Your task to perform on an android device: change notifications settings Image 0: 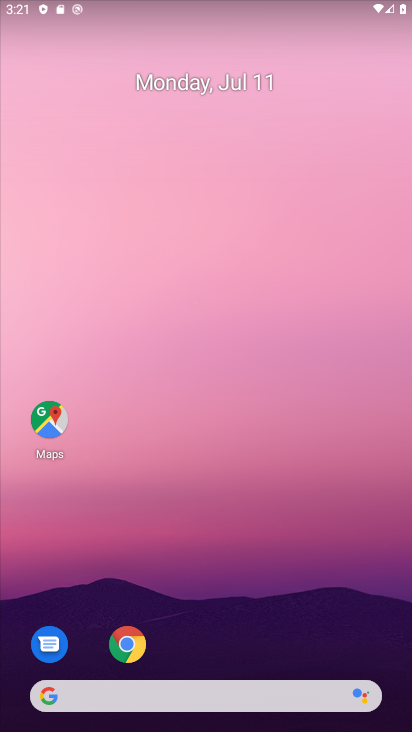
Step 0: drag from (215, 725) to (236, 57)
Your task to perform on an android device: change notifications settings Image 1: 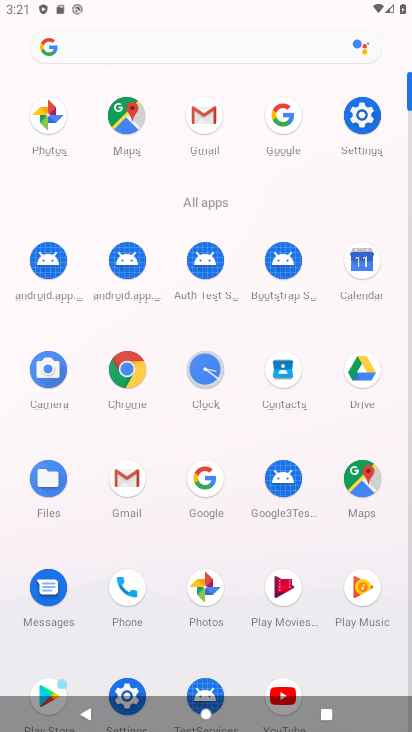
Step 1: click (363, 110)
Your task to perform on an android device: change notifications settings Image 2: 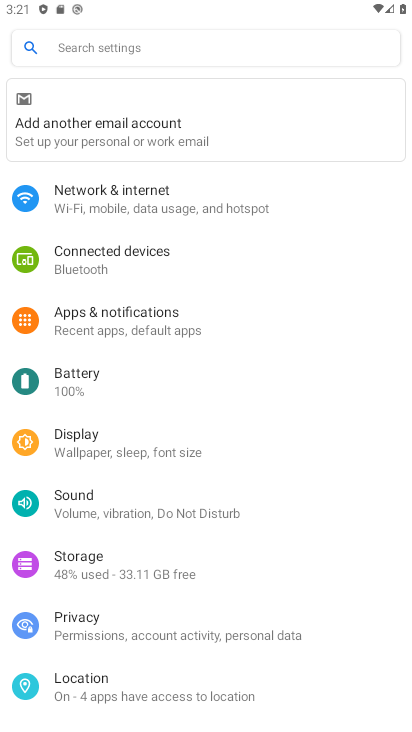
Step 2: click (101, 317)
Your task to perform on an android device: change notifications settings Image 3: 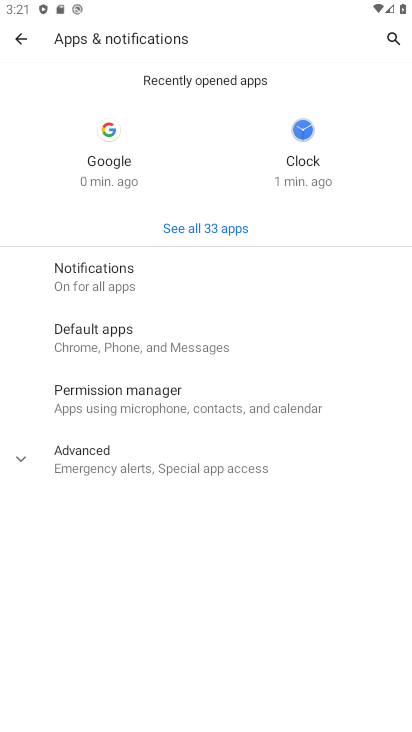
Step 3: click (95, 283)
Your task to perform on an android device: change notifications settings Image 4: 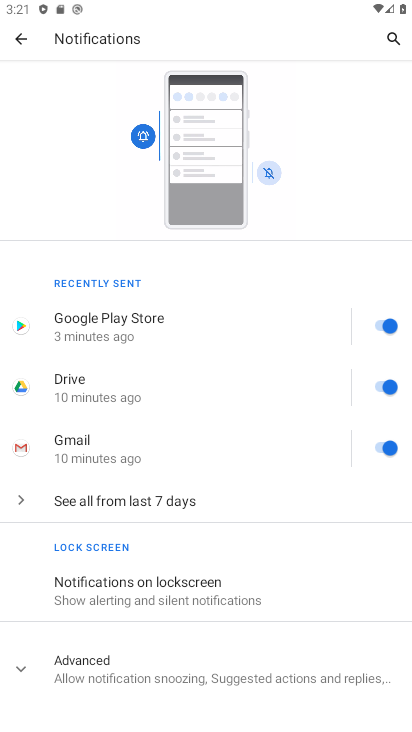
Step 4: click (108, 671)
Your task to perform on an android device: change notifications settings Image 5: 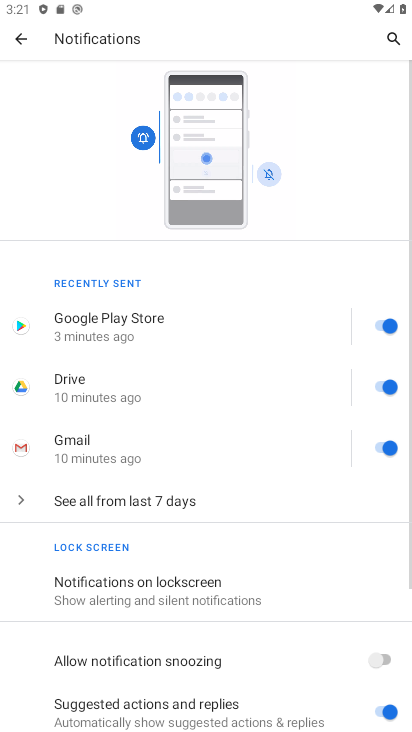
Step 5: click (387, 658)
Your task to perform on an android device: change notifications settings Image 6: 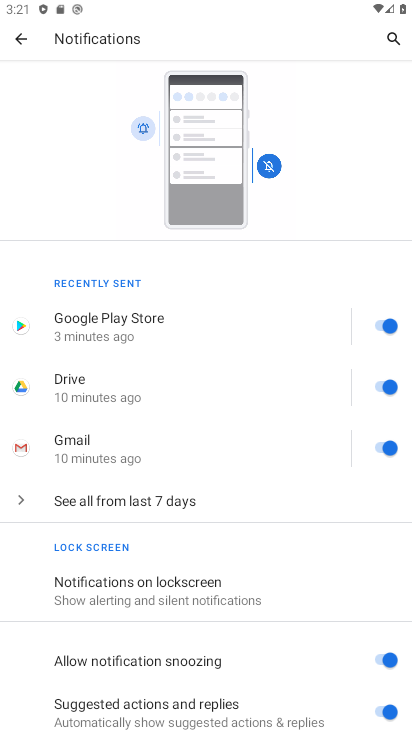
Step 6: task complete